Your task to perform on an android device: Show me popular videos on Youtube Image 0: 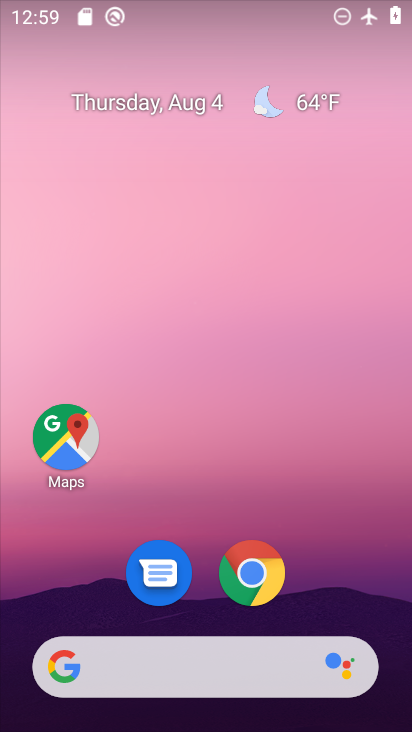
Step 0: drag from (369, 574) to (357, 50)
Your task to perform on an android device: Show me popular videos on Youtube Image 1: 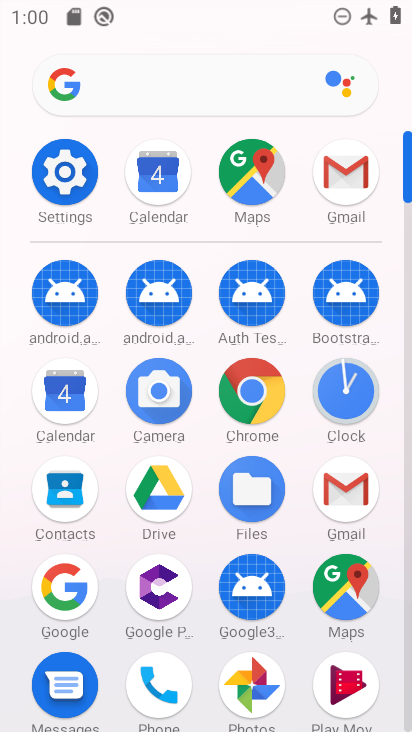
Step 1: drag from (213, 561) to (216, 214)
Your task to perform on an android device: Show me popular videos on Youtube Image 2: 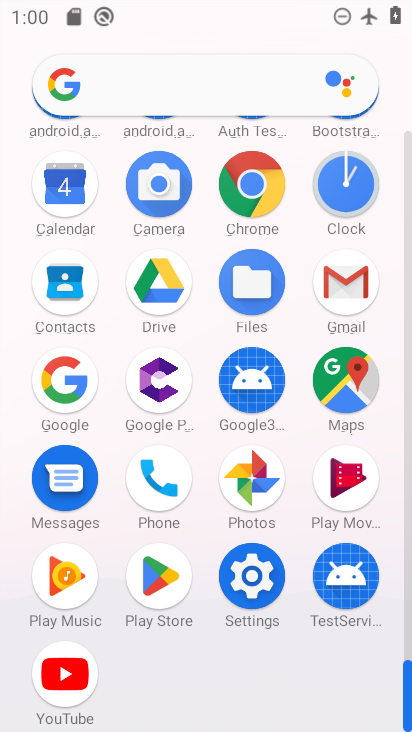
Step 2: click (62, 677)
Your task to perform on an android device: Show me popular videos on Youtube Image 3: 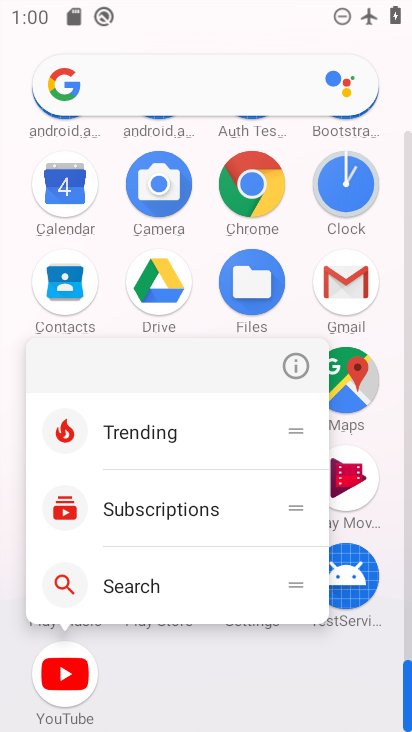
Step 3: click (60, 675)
Your task to perform on an android device: Show me popular videos on Youtube Image 4: 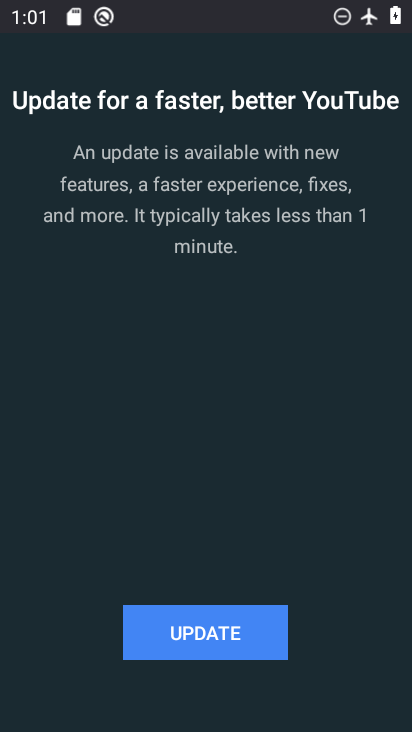
Step 4: click (195, 621)
Your task to perform on an android device: Show me popular videos on Youtube Image 5: 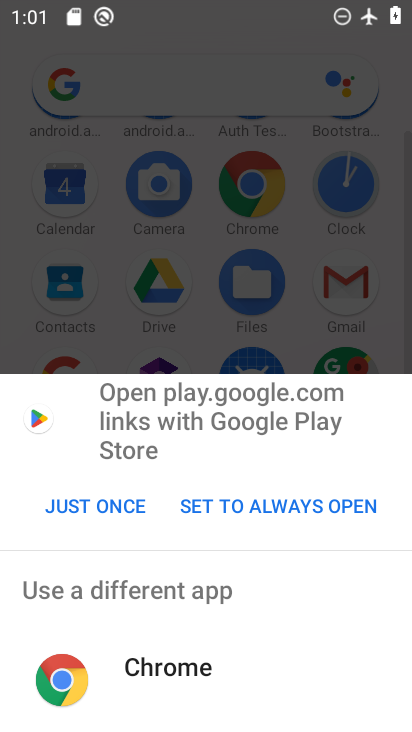
Step 5: click (112, 511)
Your task to perform on an android device: Show me popular videos on Youtube Image 6: 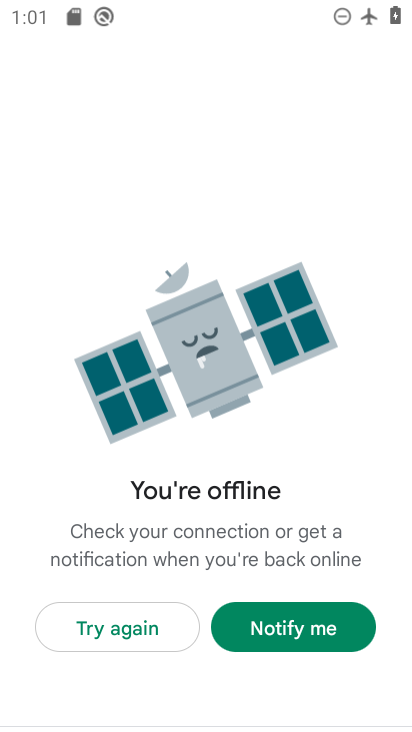
Step 6: task complete